Your task to perform on an android device: turn on bluetooth scan Image 0: 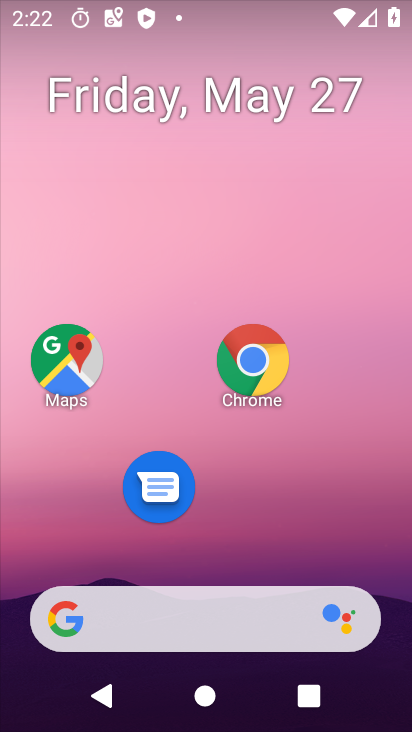
Step 0: drag from (242, 412) to (269, 87)
Your task to perform on an android device: turn on bluetooth scan Image 1: 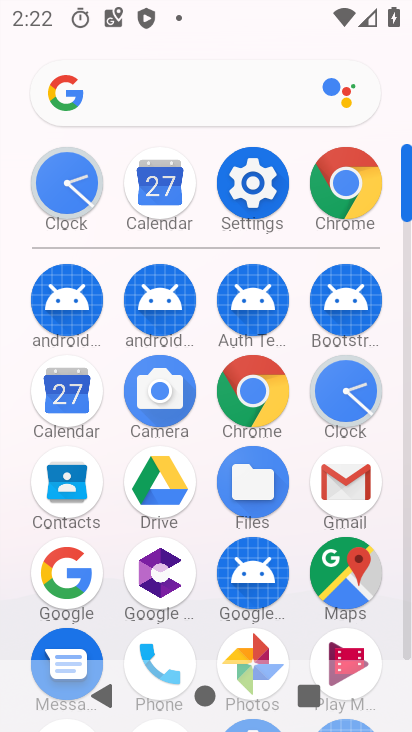
Step 1: click (256, 180)
Your task to perform on an android device: turn on bluetooth scan Image 2: 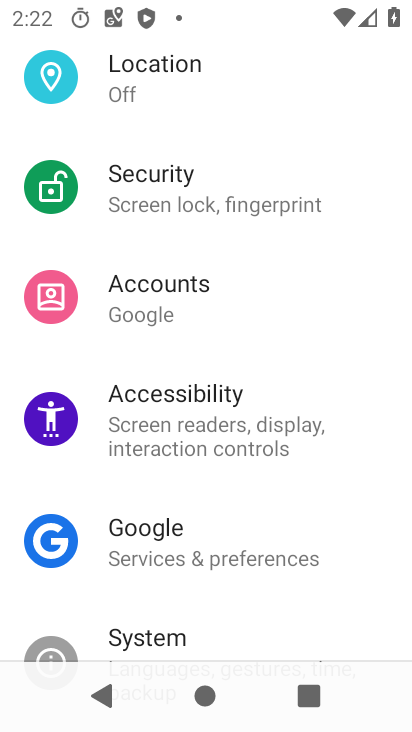
Step 2: click (199, 81)
Your task to perform on an android device: turn on bluetooth scan Image 3: 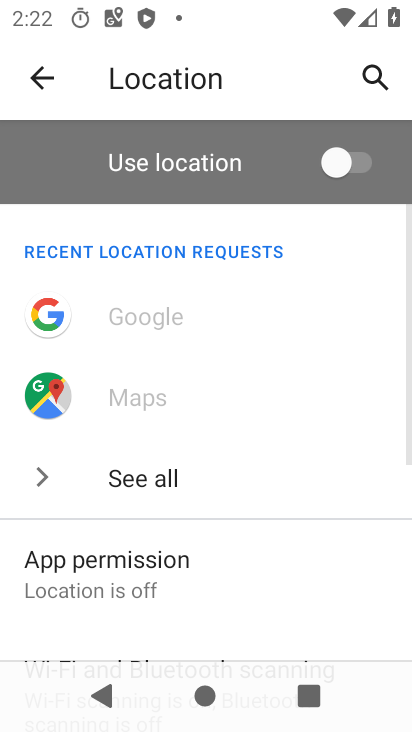
Step 3: drag from (169, 522) to (216, 174)
Your task to perform on an android device: turn on bluetooth scan Image 4: 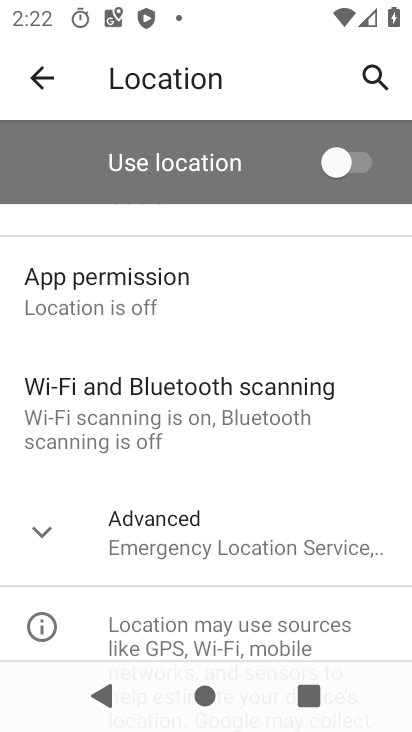
Step 4: click (138, 534)
Your task to perform on an android device: turn on bluetooth scan Image 5: 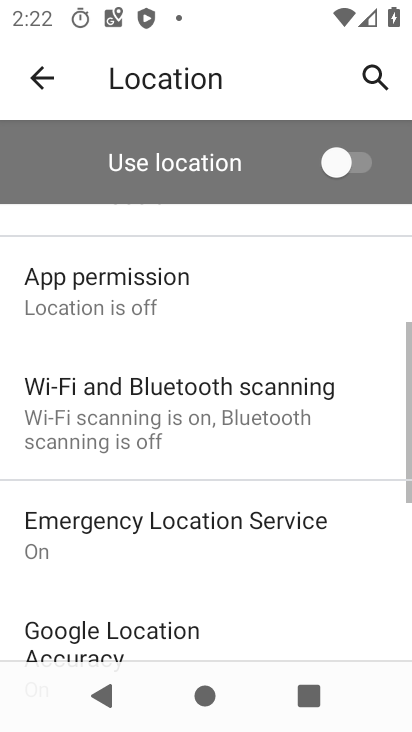
Step 5: drag from (176, 345) to (243, 615)
Your task to perform on an android device: turn on bluetooth scan Image 6: 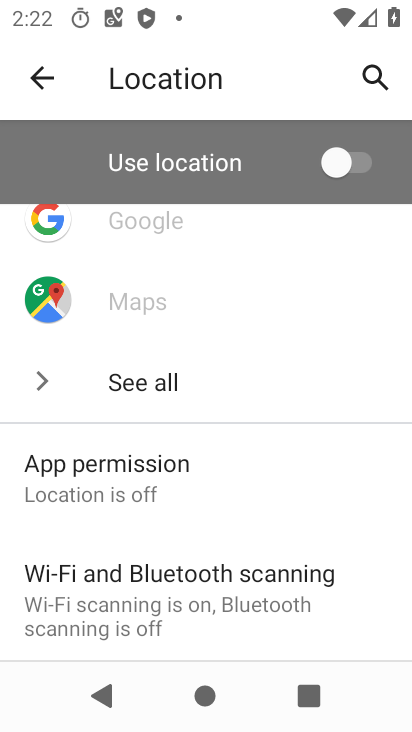
Step 6: click (166, 599)
Your task to perform on an android device: turn on bluetooth scan Image 7: 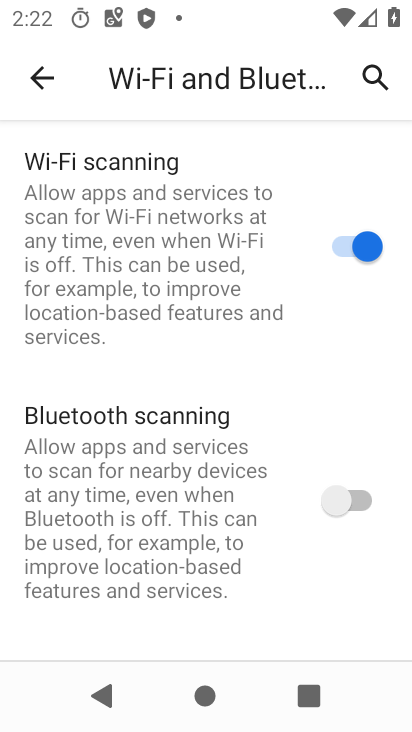
Step 7: click (342, 512)
Your task to perform on an android device: turn on bluetooth scan Image 8: 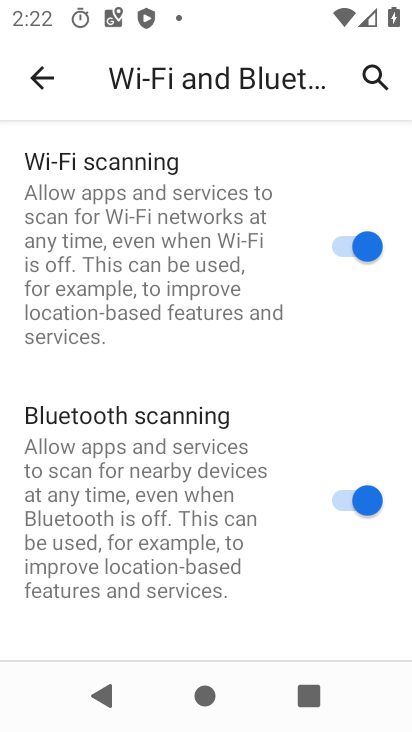
Step 8: task complete